Your task to perform on an android device: open chrome privacy settings Image 0: 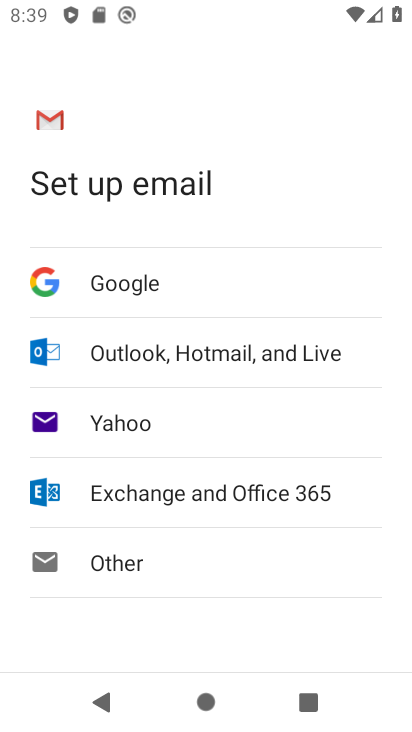
Step 0: press home button
Your task to perform on an android device: open chrome privacy settings Image 1: 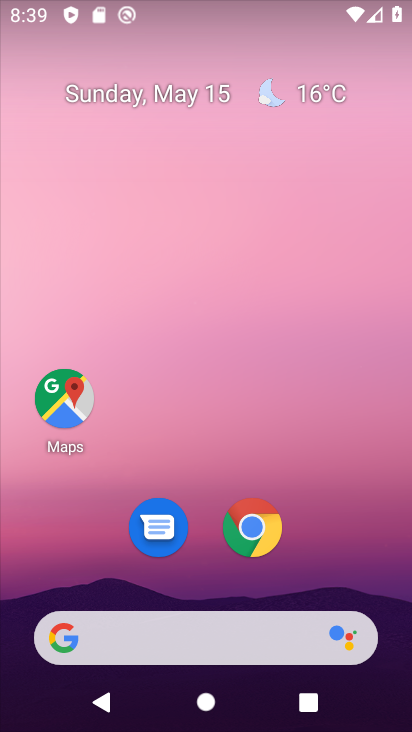
Step 1: click (257, 525)
Your task to perform on an android device: open chrome privacy settings Image 2: 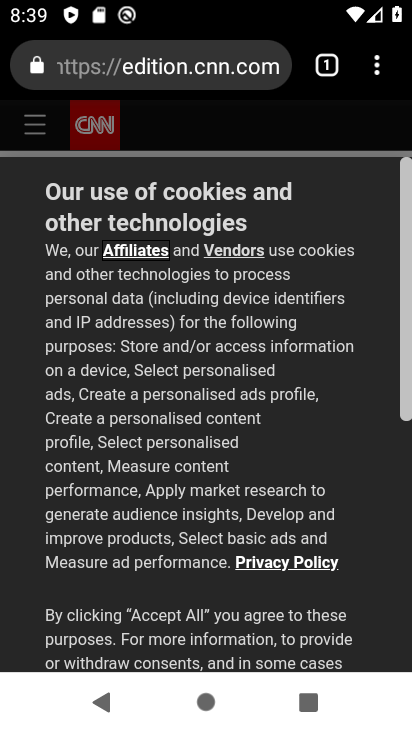
Step 2: click (376, 69)
Your task to perform on an android device: open chrome privacy settings Image 3: 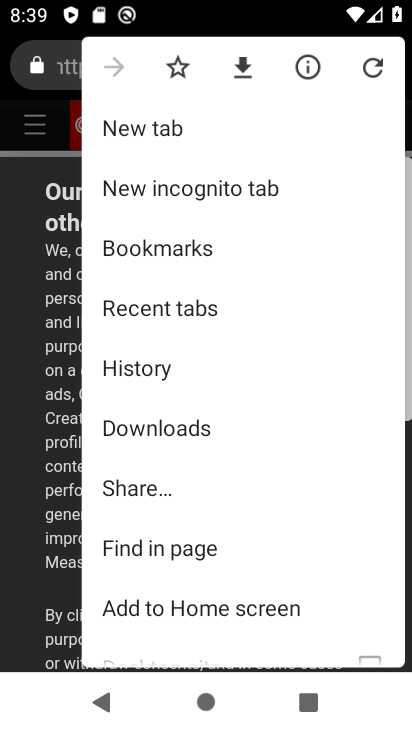
Step 3: drag from (276, 568) to (270, 216)
Your task to perform on an android device: open chrome privacy settings Image 4: 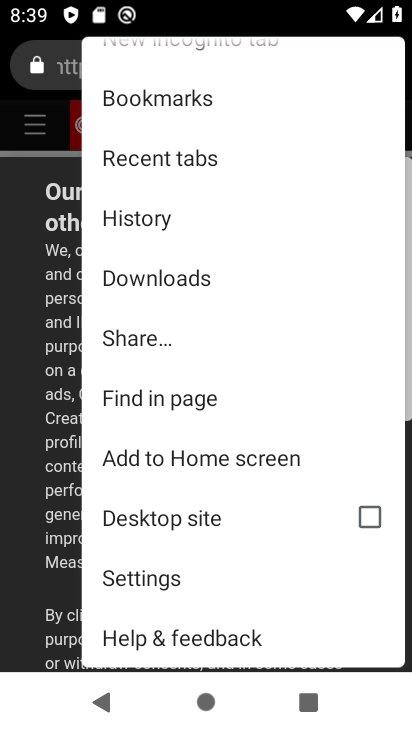
Step 4: click (155, 579)
Your task to perform on an android device: open chrome privacy settings Image 5: 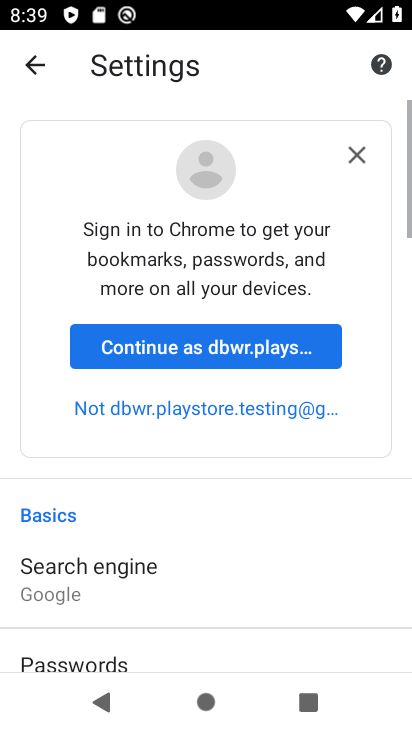
Step 5: drag from (184, 566) to (215, 219)
Your task to perform on an android device: open chrome privacy settings Image 6: 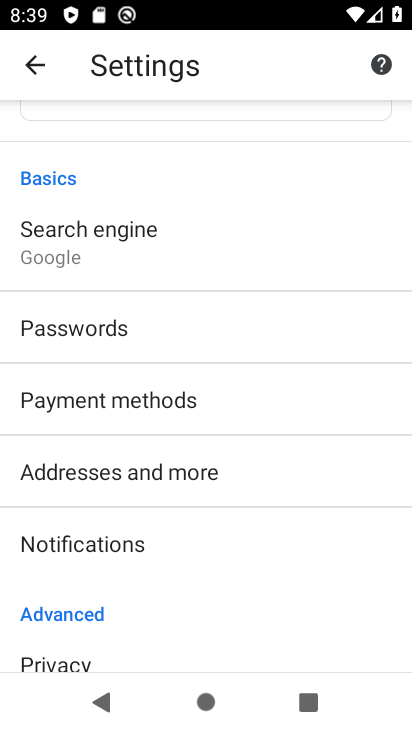
Step 6: drag from (181, 600) to (177, 325)
Your task to perform on an android device: open chrome privacy settings Image 7: 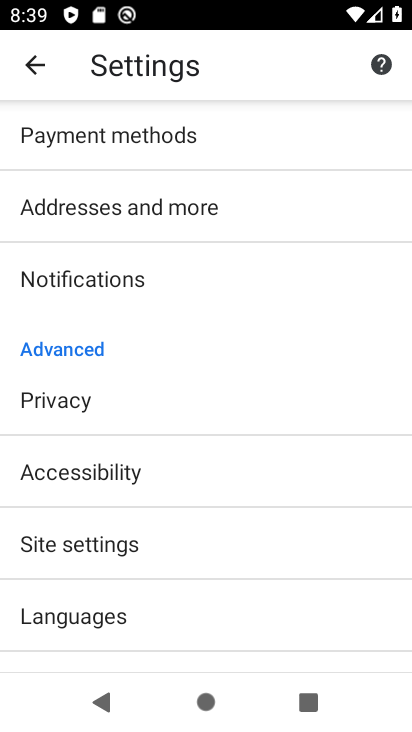
Step 7: click (52, 388)
Your task to perform on an android device: open chrome privacy settings Image 8: 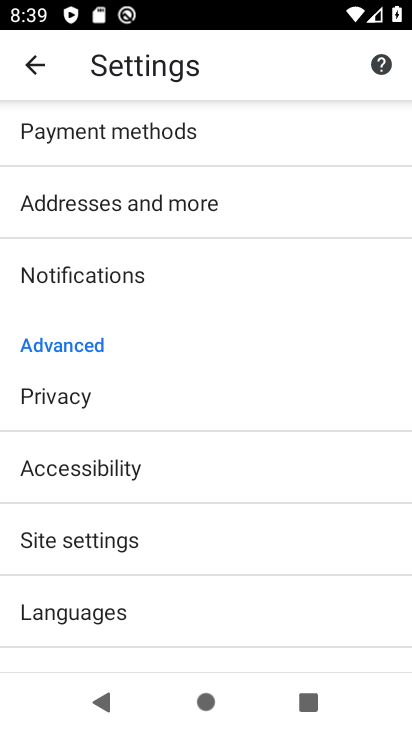
Step 8: click (46, 400)
Your task to perform on an android device: open chrome privacy settings Image 9: 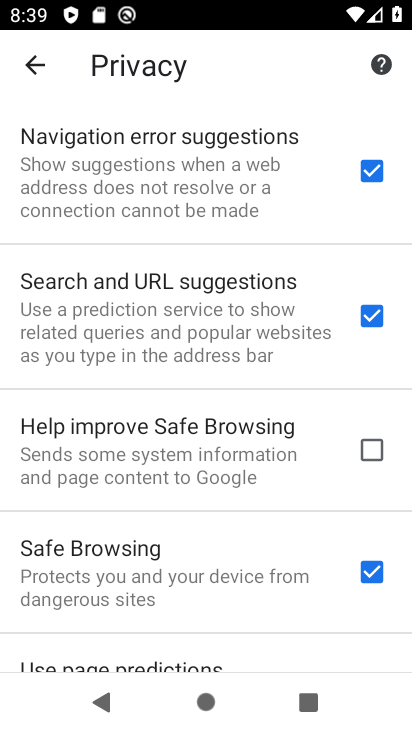
Step 9: task complete